Your task to perform on an android device: check storage Image 0: 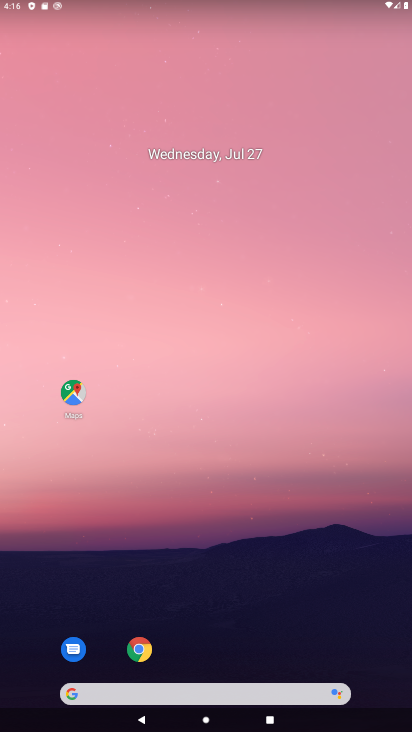
Step 0: drag from (307, 632) to (192, 1)
Your task to perform on an android device: check storage Image 1: 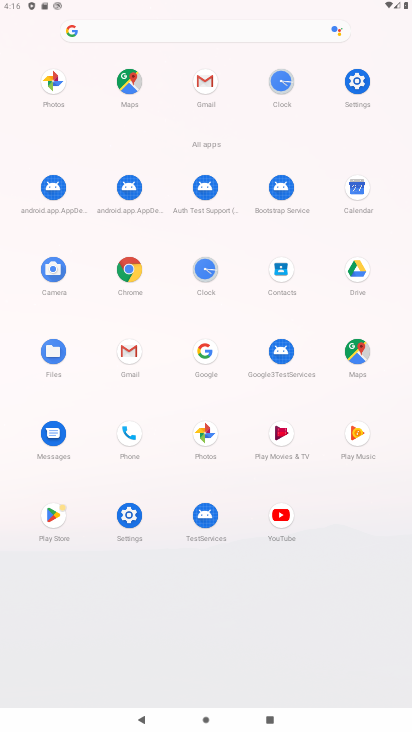
Step 1: click (122, 511)
Your task to perform on an android device: check storage Image 2: 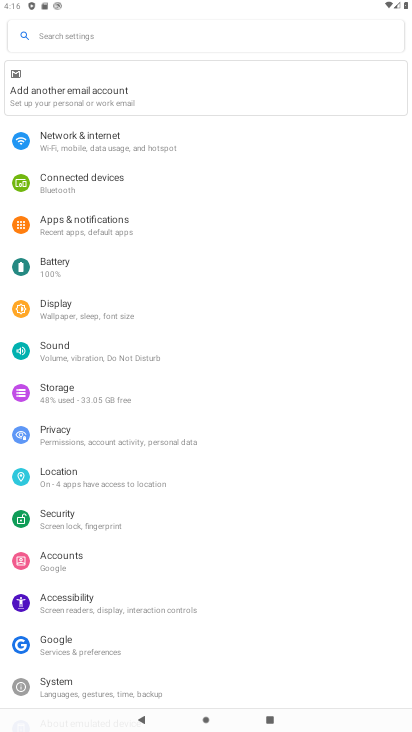
Step 2: click (78, 390)
Your task to perform on an android device: check storage Image 3: 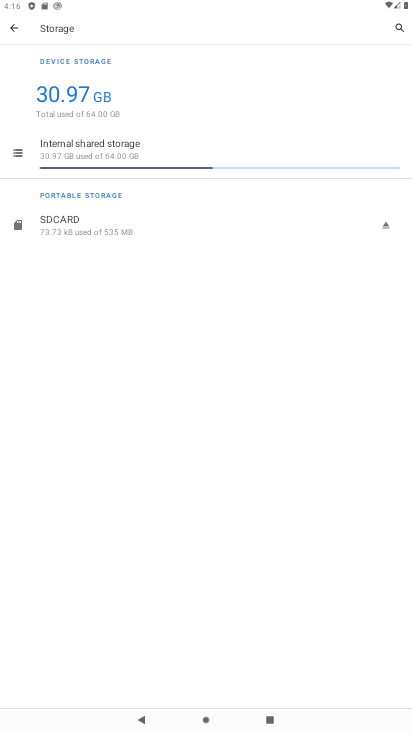
Step 3: task complete